Your task to perform on an android device: clear all cookies in the chrome app Image 0: 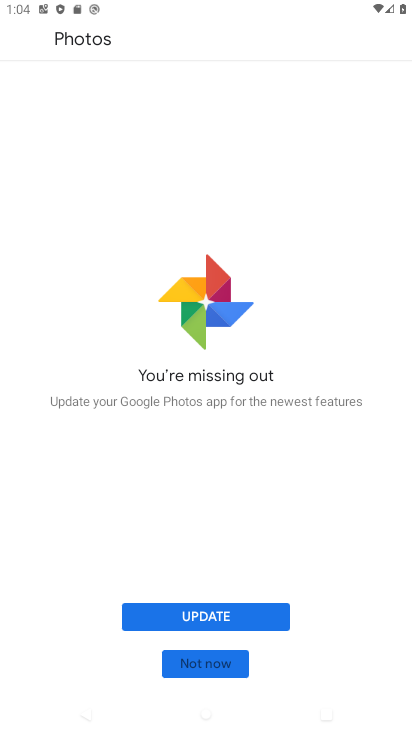
Step 0: press home button
Your task to perform on an android device: clear all cookies in the chrome app Image 1: 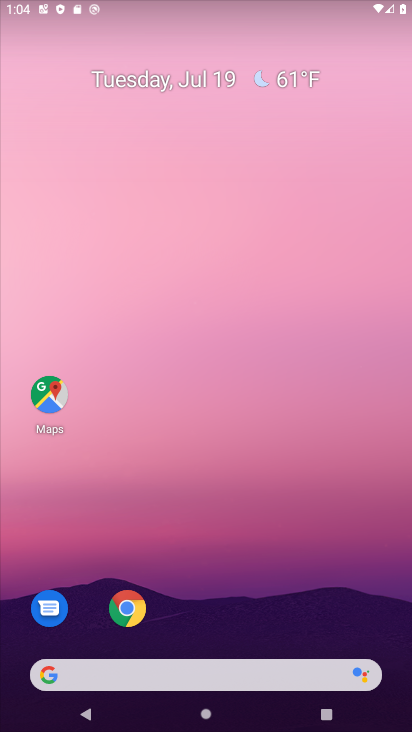
Step 1: drag from (296, 572) to (344, 11)
Your task to perform on an android device: clear all cookies in the chrome app Image 2: 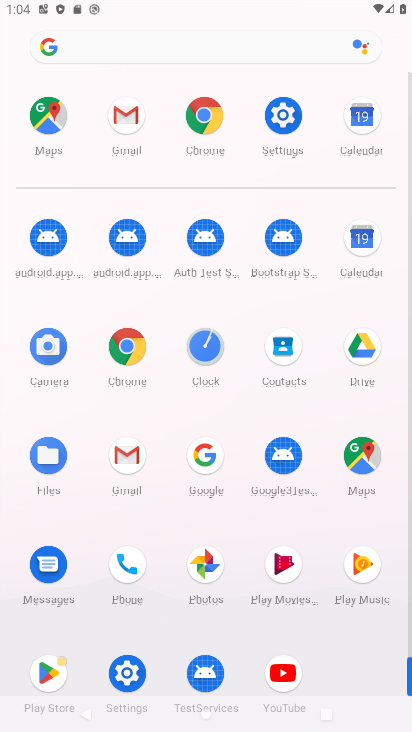
Step 2: click (203, 122)
Your task to perform on an android device: clear all cookies in the chrome app Image 3: 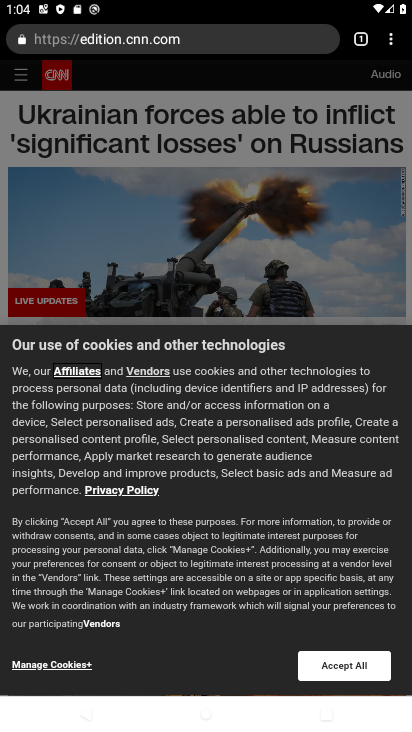
Step 3: drag from (395, 36) to (291, 213)
Your task to perform on an android device: clear all cookies in the chrome app Image 4: 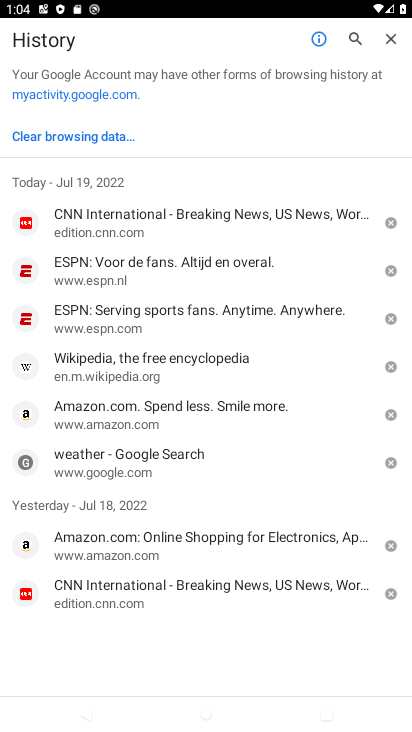
Step 4: click (85, 137)
Your task to perform on an android device: clear all cookies in the chrome app Image 5: 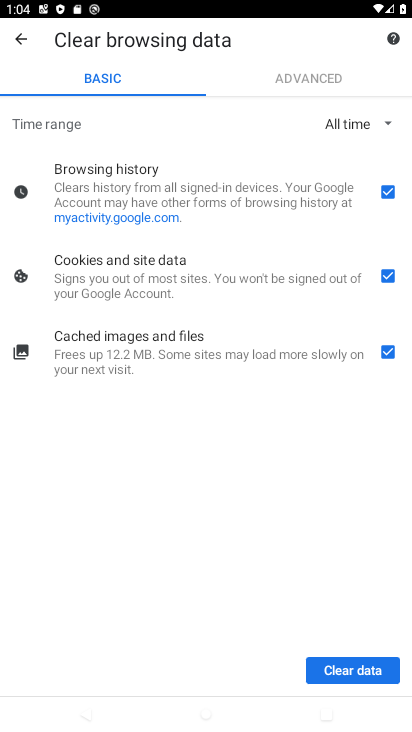
Step 5: click (392, 346)
Your task to perform on an android device: clear all cookies in the chrome app Image 6: 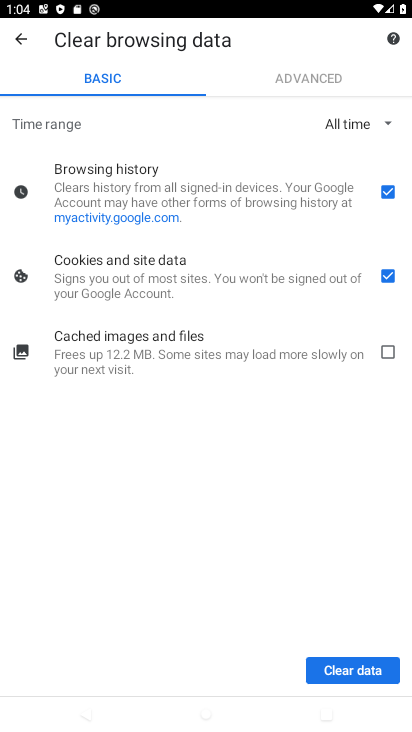
Step 6: click (382, 186)
Your task to perform on an android device: clear all cookies in the chrome app Image 7: 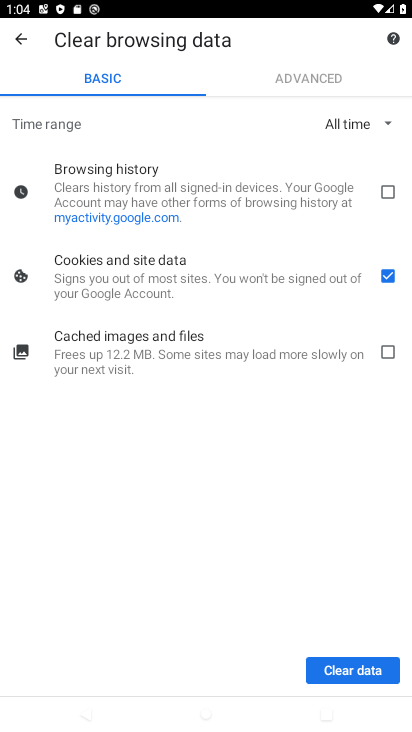
Step 7: click (344, 672)
Your task to perform on an android device: clear all cookies in the chrome app Image 8: 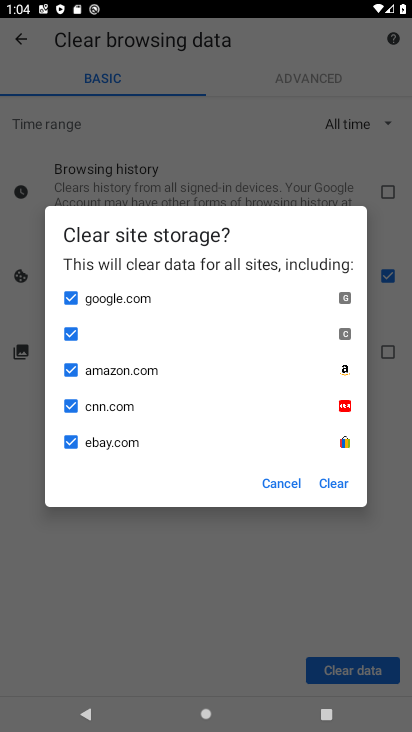
Step 8: click (335, 487)
Your task to perform on an android device: clear all cookies in the chrome app Image 9: 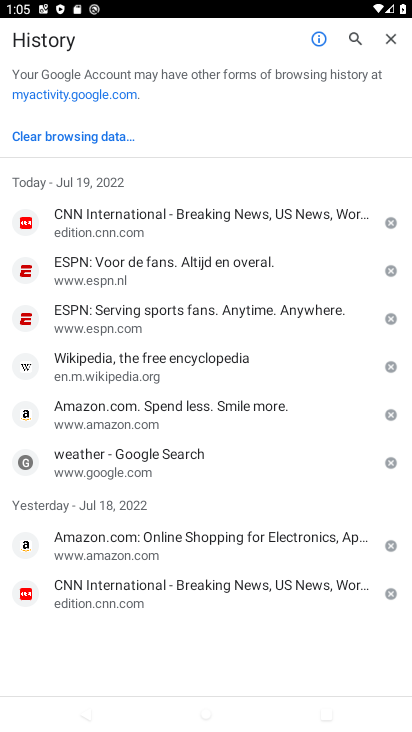
Step 9: task complete